Your task to perform on an android device: Play the last video I watched on Youtube Image 0: 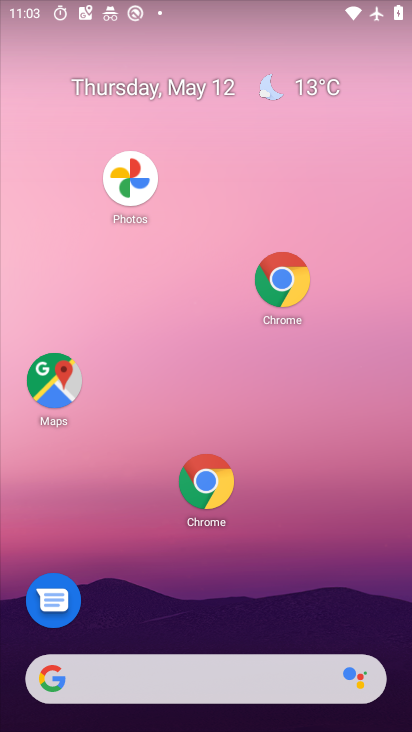
Step 0: drag from (279, 576) to (3, 91)
Your task to perform on an android device: Play the last video I watched on Youtube Image 1: 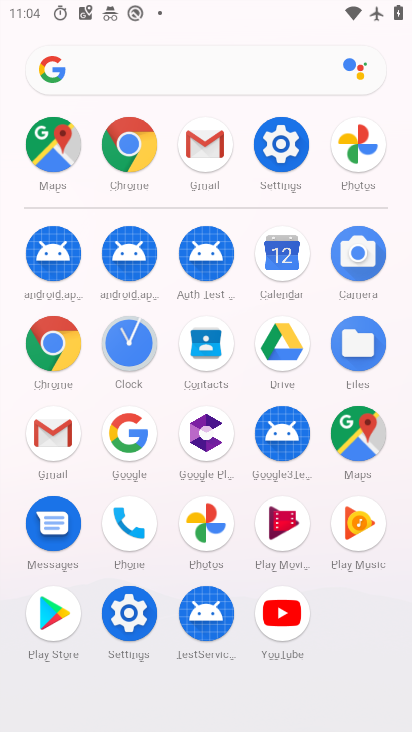
Step 1: click (270, 603)
Your task to perform on an android device: Play the last video I watched on Youtube Image 2: 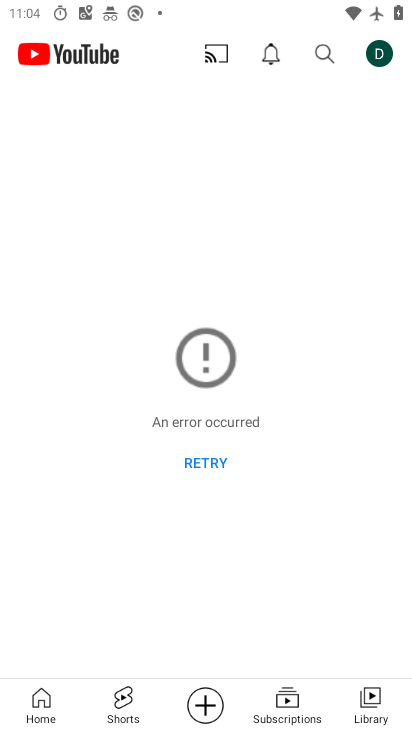
Step 2: drag from (194, 397) to (143, 57)
Your task to perform on an android device: Play the last video I watched on Youtube Image 3: 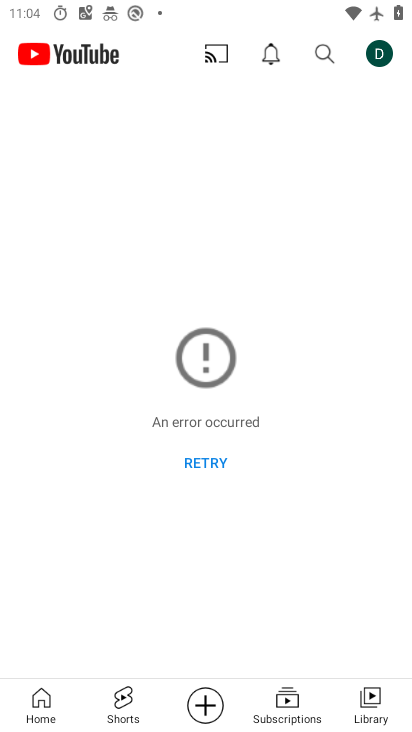
Step 3: drag from (200, 374) to (157, 104)
Your task to perform on an android device: Play the last video I watched on Youtube Image 4: 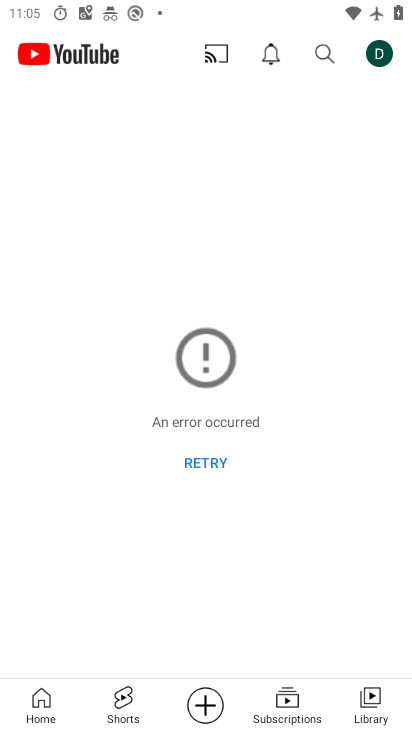
Step 4: drag from (203, 357) to (162, 143)
Your task to perform on an android device: Play the last video I watched on Youtube Image 5: 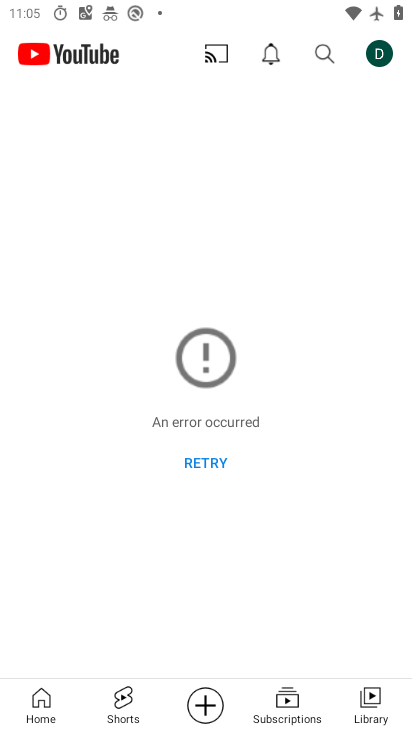
Step 5: drag from (201, 380) to (123, 170)
Your task to perform on an android device: Play the last video I watched on Youtube Image 6: 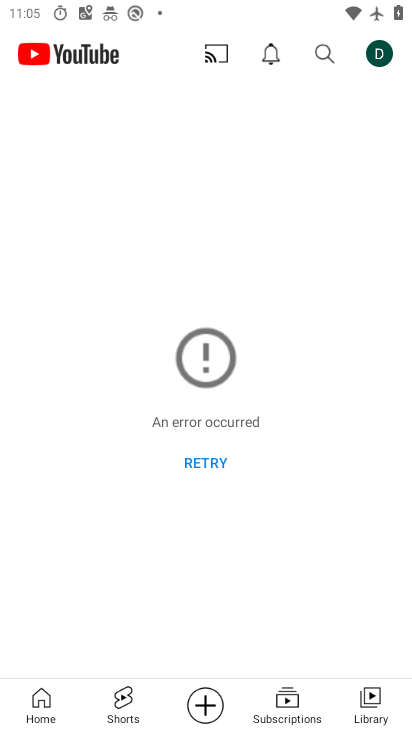
Step 6: drag from (201, 399) to (57, 62)
Your task to perform on an android device: Play the last video I watched on Youtube Image 7: 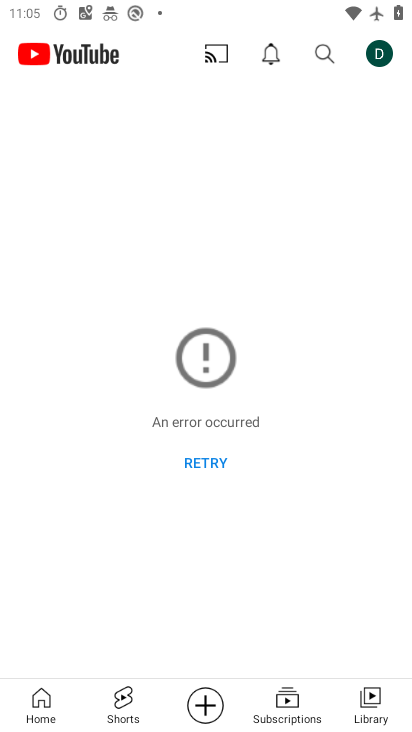
Step 7: click (194, 374)
Your task to perform on an android device: Play the last video I watched on Youtube Image 8: 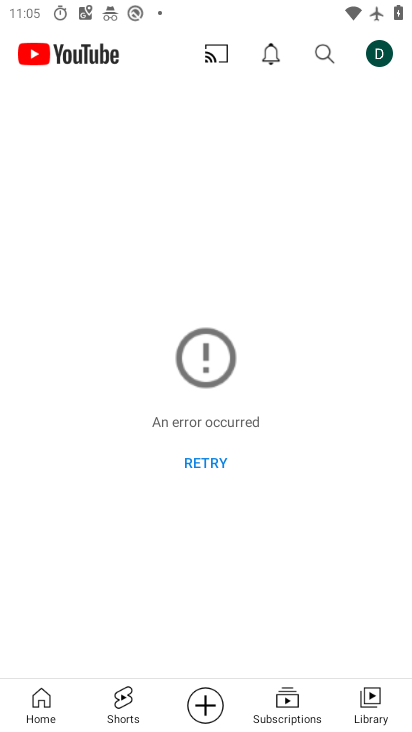
Step 8: task complete